Your task to perform on an android device: snooze an email in the gmail app Image 0: 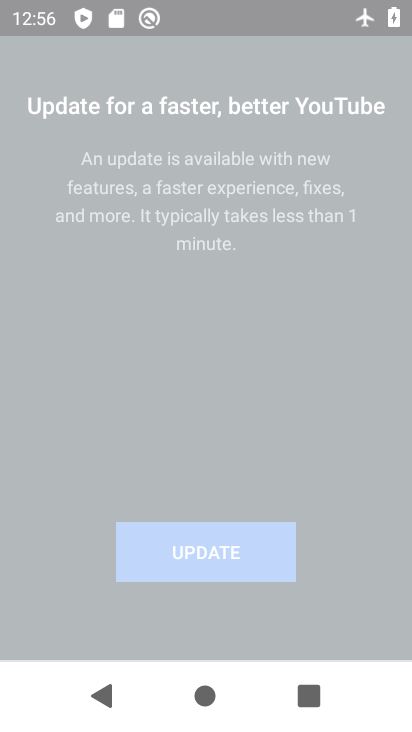
Step 0: drag from (210, 559) to (90, 128)
Your task to perform on an android device: snooze an email in the gmail app Image 1: 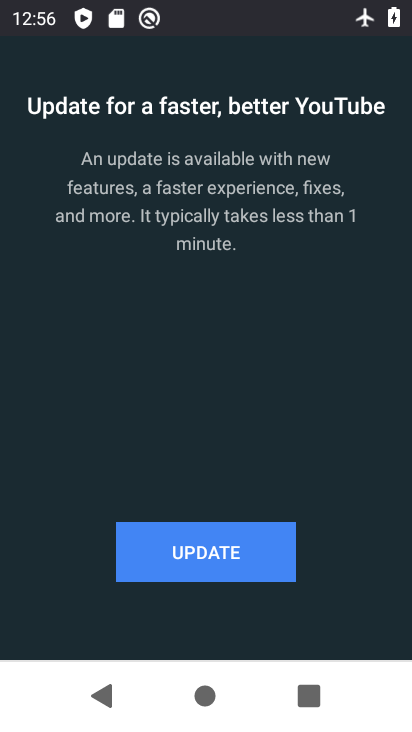
Step 1: press home button
Your task to perform on an android device: snooze an email in the gmail app Image 2: 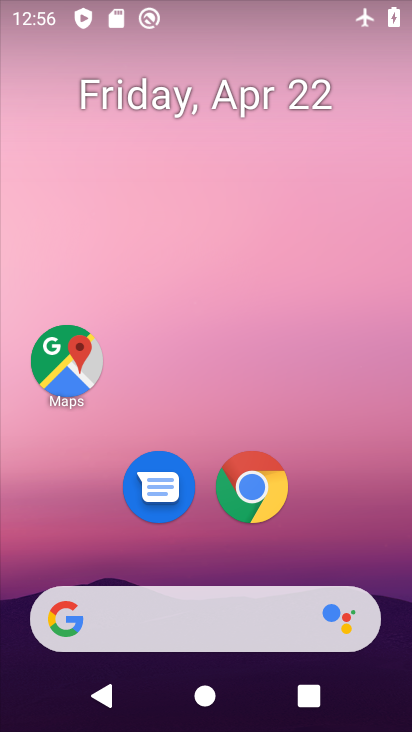
Step 2: drag from (212, 553) to (209, 188)
Your task to perform on an android device: snooze an email in the gmail app Image 3: 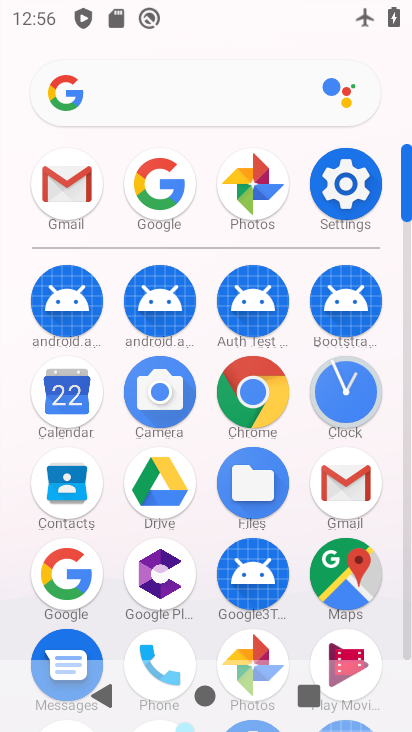
Step 3: click (63, 209)
Your task to perform on an android device: snooze an email in the gmail app Image 4: 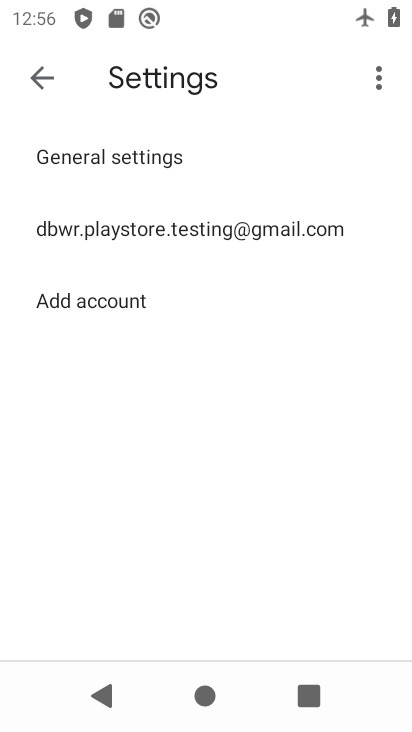
Step 4: click (36, 86)
Your task to perform on an android device: snooze an email in the gmail app Image 5: 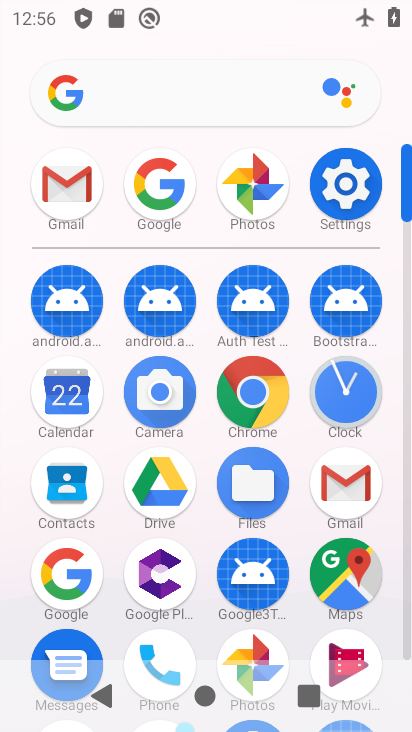
Step 5: click (75, 182)
Your task to perform on an android device: snooze an email in the gmail app Image 6: 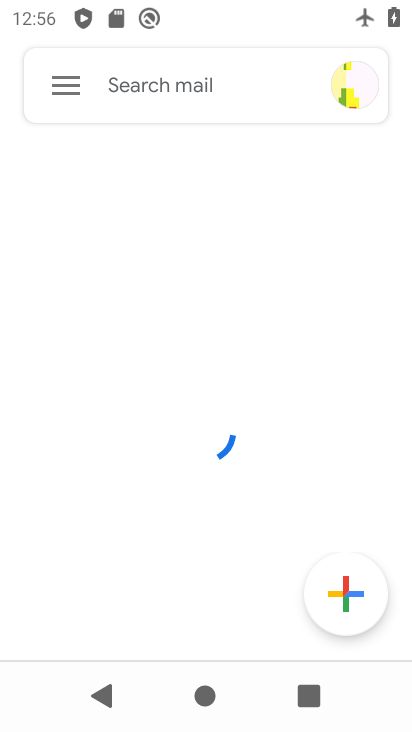
Step 6: click (68, 92)
Your task to perform on an android device: snooze an email in the gmail app Image 7: 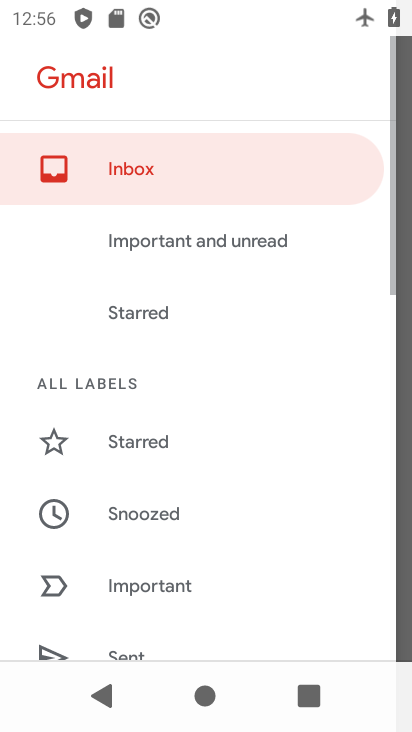
Step 7: drag from (204, 511) to (192, 225)
Your task to perform on an android device: snooze an email in the gmail app Image 8: 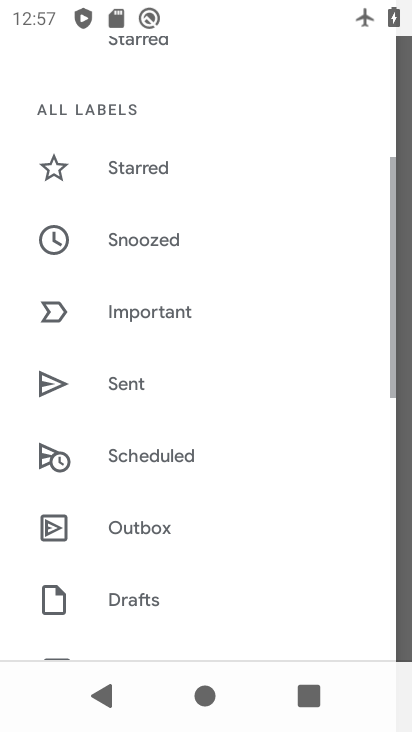
Step 8: drag from (197, 486) to (207, 226)
Your task to perform on an android device: snooze an email in the gmail app Image 9: 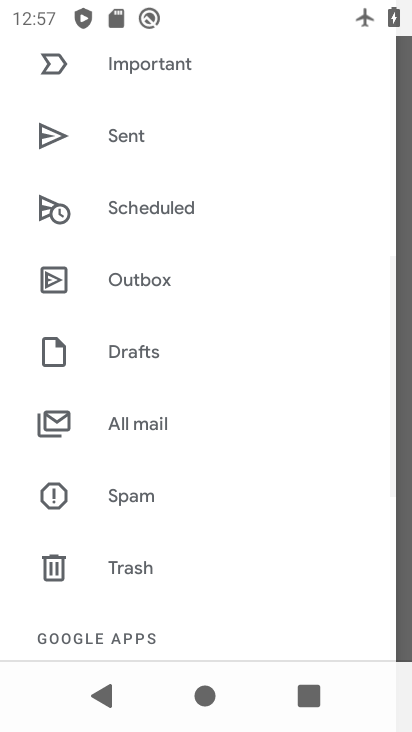
Step 9: drag from (203, 456) to (217, 237)
Your task to perform on an android device: snooze an email in the gmail app Image 10: 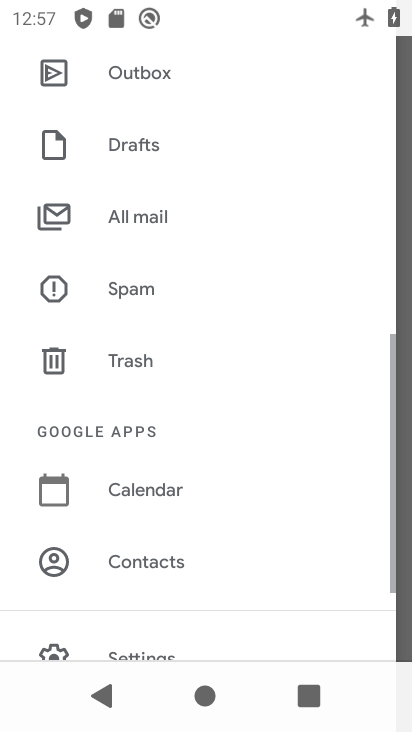
Step 10: drag from (195, 531) to (206, 261)
Your task to perform on an android device: snooze an email in the gmail app Image 11: 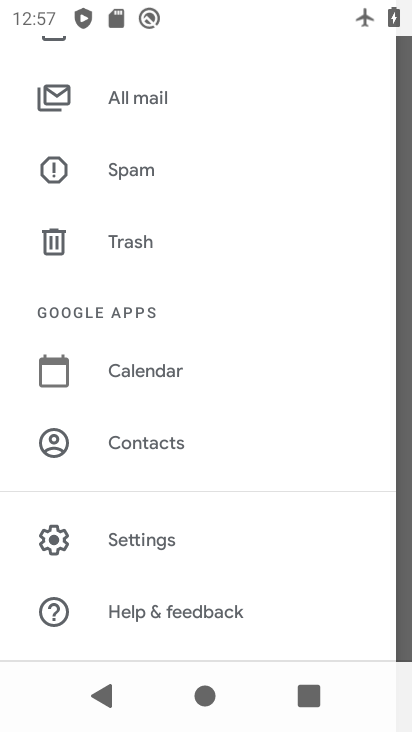
Step 11: click (144, 98)
Your task to perform on an android device: snooze an email in the gmail app Image 12: 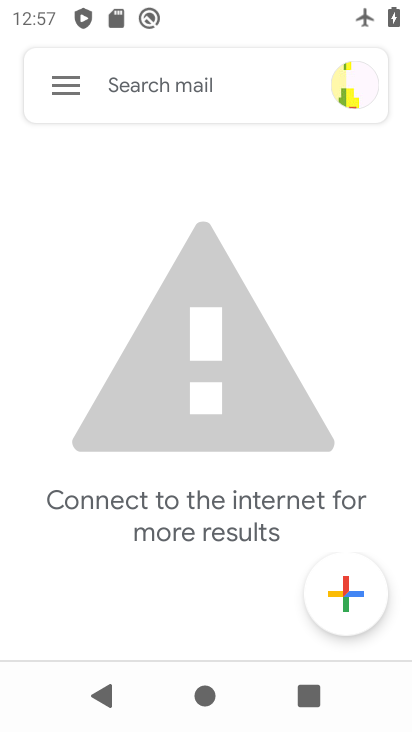
Step 12: task complete